Your task to perform on an android device: Open Chrome and go to the settings page Image 0: 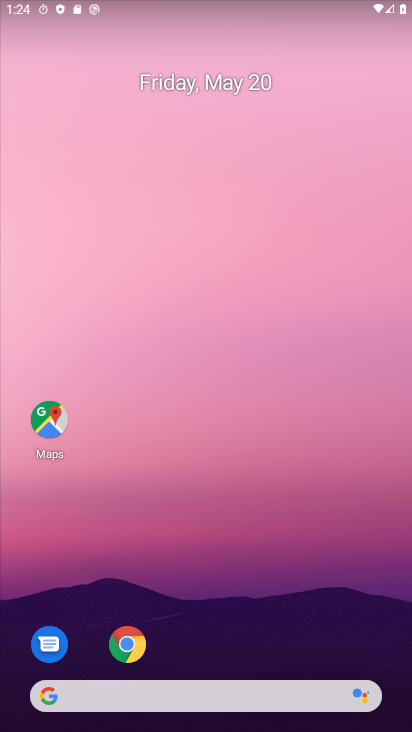
Step 0: click (137, 646)
Your task to perform on an android device: Open Chrome and go to the settings page Image 1: 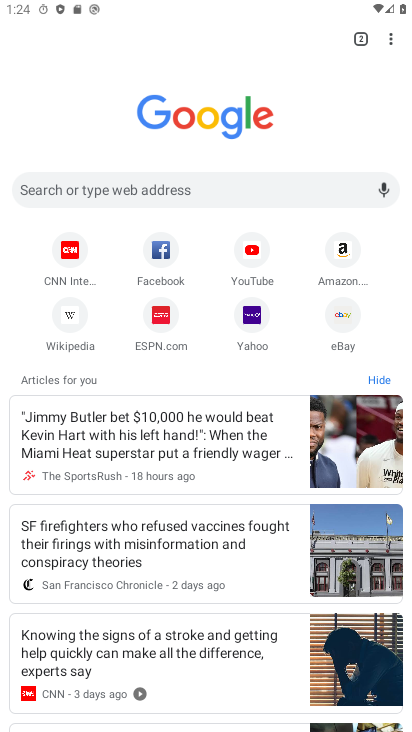
Step 1: click (398, 36)
Your task to perform on an android device: Open Chrome and go to the settings page Image 2: 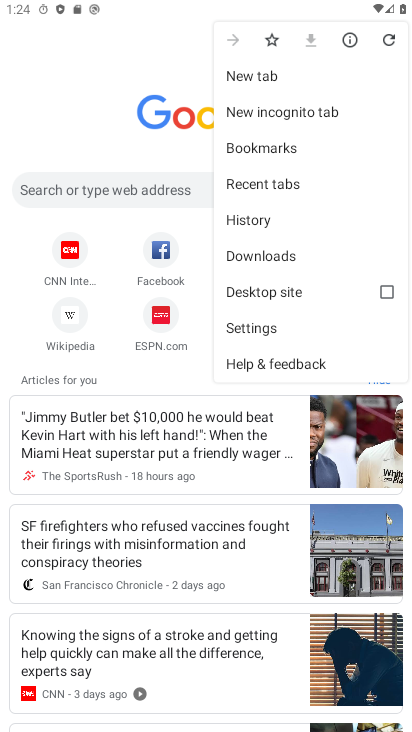
Step 2: click (279, 326)
Your task to perform on an android device: Open Chrome and go to the settings page Image 3: 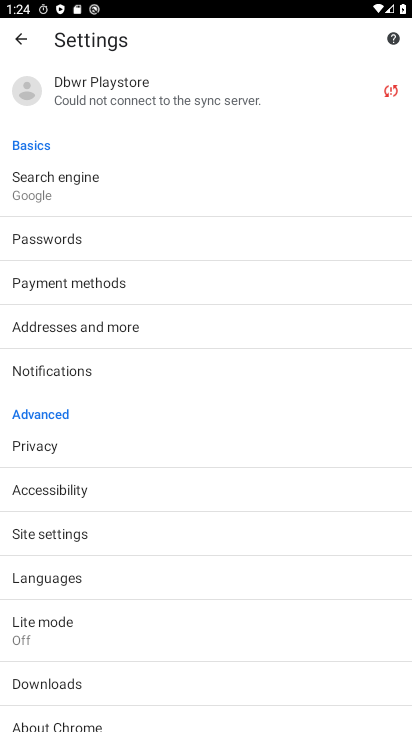
Step 3: task complete